Your task to perform on an android device: change notification settings in the gmail app Image 0: 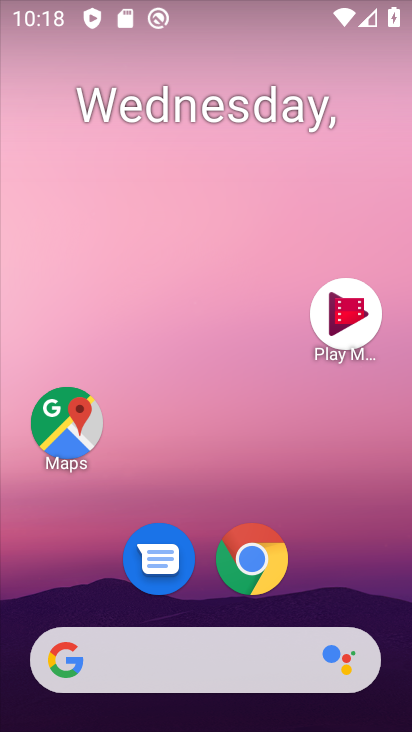
Step 0: drag from (359, 581) to (345, 143)
Your task to perform on an android device: change notification settings in the gmail app Image 1: 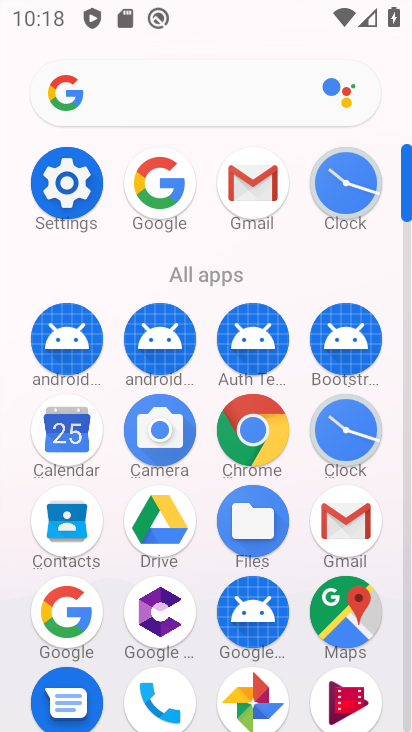
Step 1: click (270, 185)
Your task to perform on an android device: change notification settings in the gmail app Image 2: 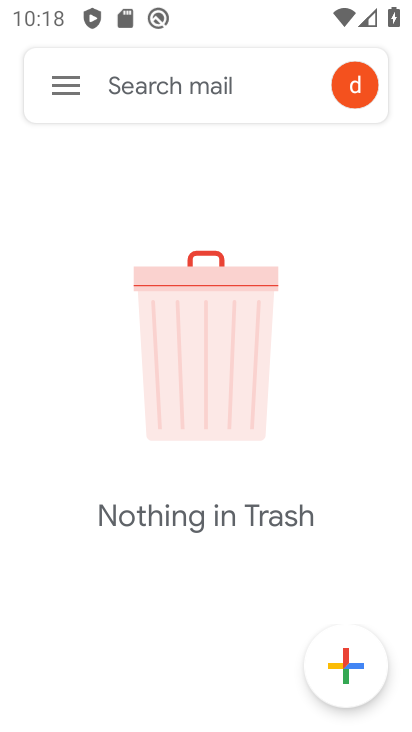
Step 2: click (50, 87)
Your task to perform on an android device: change notification settings in the gmail app Image 3: 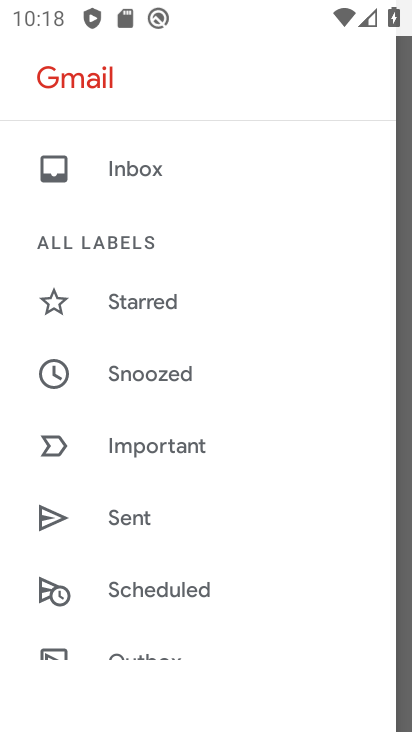
Step 3: drag from (255, 605) to (278, 47)
Your task to perform on an android device: change notification settings in the gmail app Image 4: 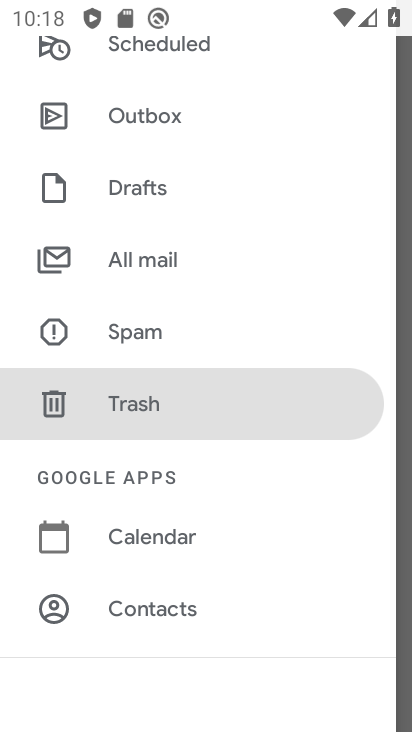
Step 4: drag from (314, 573) to (317, 227)
Your task to perform on an android device: change notification settings in the gmail app Image 5: 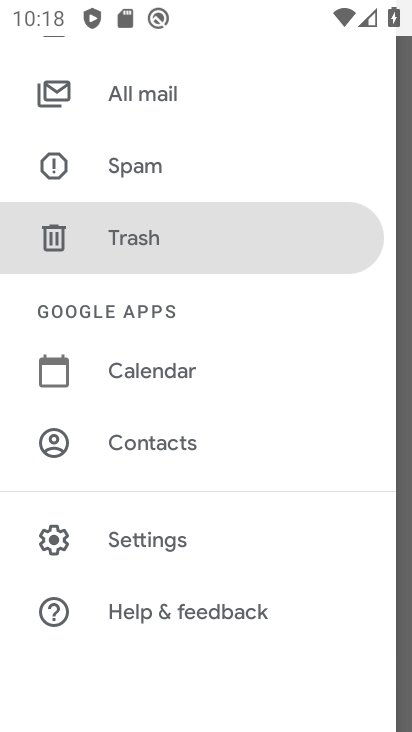
Step 5: click (137, 543)
Your task to perform on an android device: change notification settings in the gmail app Image 6: 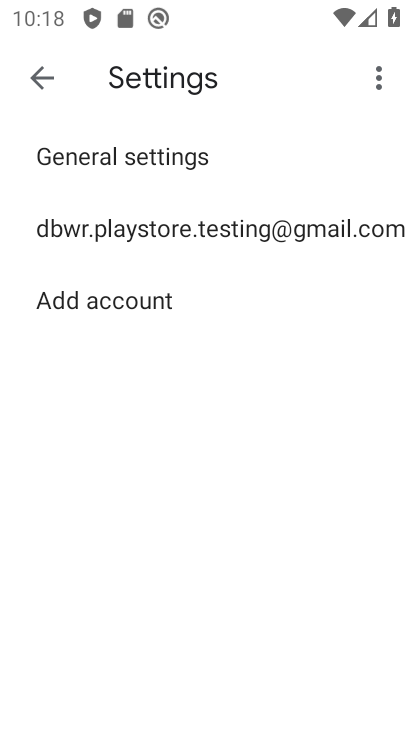
Step 6: click (216, 226)
Your task to perform on an android device: change notification settings in the gmail app Image 7: 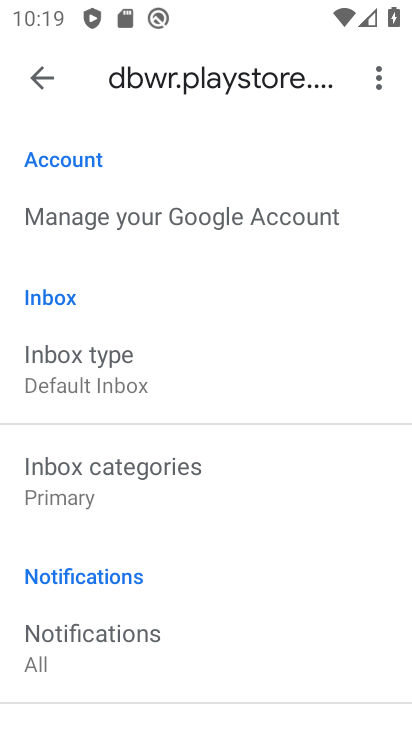
Step 7: click (93, 641)
Your task to perform on an android device: change notification settings in the gmail app Image 8: 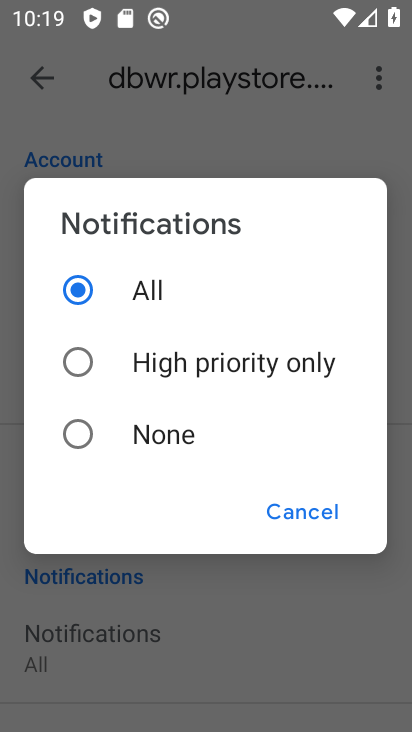
Step 8: task complete